Your task to perform on an android device: Show me popular videos on Youtube Image 0: 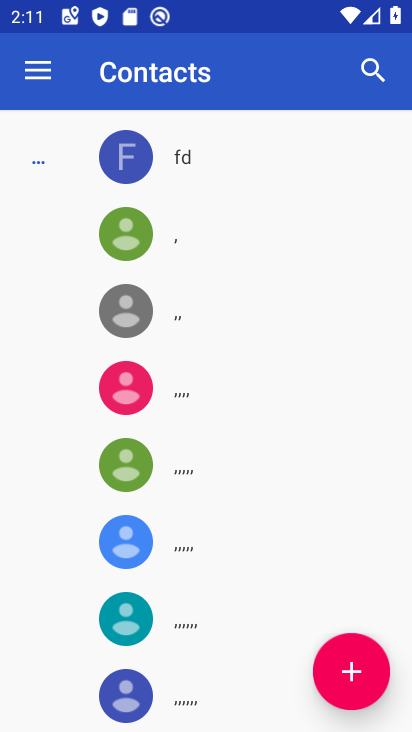
Step 0: press home button
Your task to perform on an android device: Show me popular videos on Youtube Image 1: 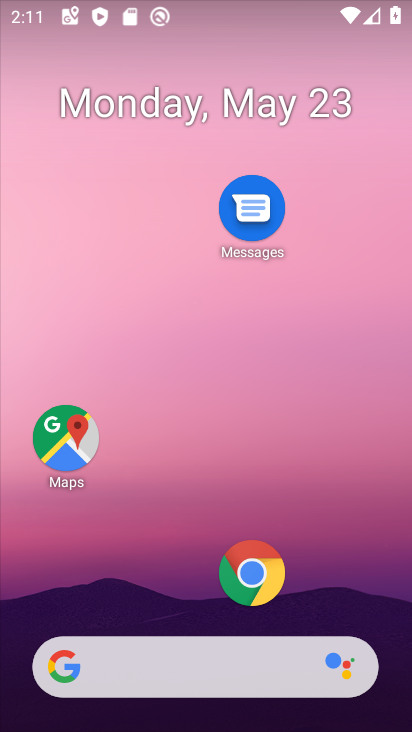
Step 1: drag from (287, 680) to (338, 57)
Your task to perform on an android device: Show me popular videos on Youtube Image 2: 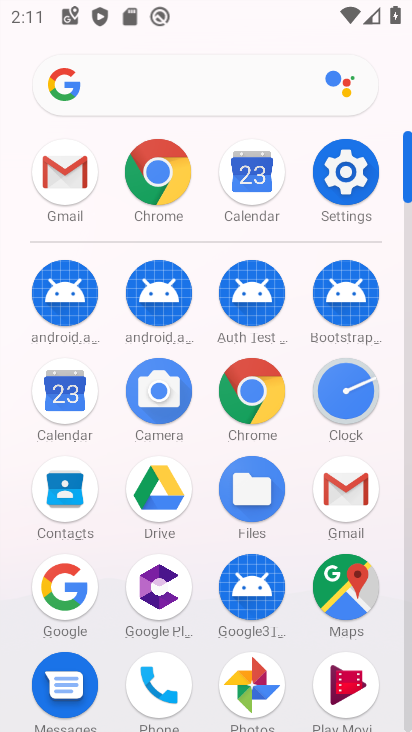
Step 2: drag from (262, 648) to (281, 2)
Your task to perform on an android device: Show me popular videos on Youtube Image 3: 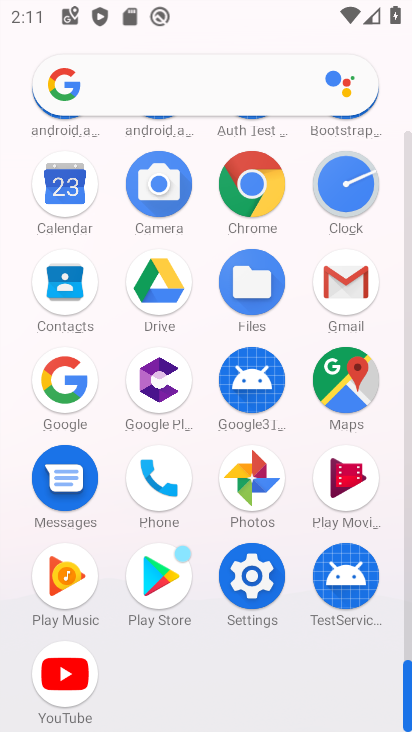
Step 3: click (71, 680)
Your task to perform on an android device: Show me popular videos on Youtube Image 4: 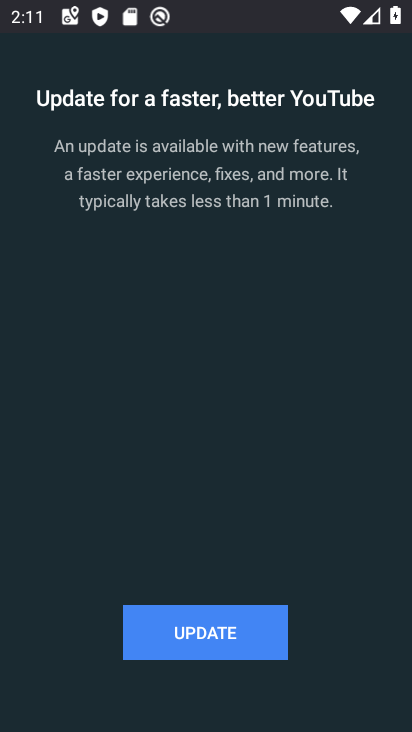
Step 4: click (200, 615)
Your task to perform on an android device: Show me popular videos on Youtube Image 5: 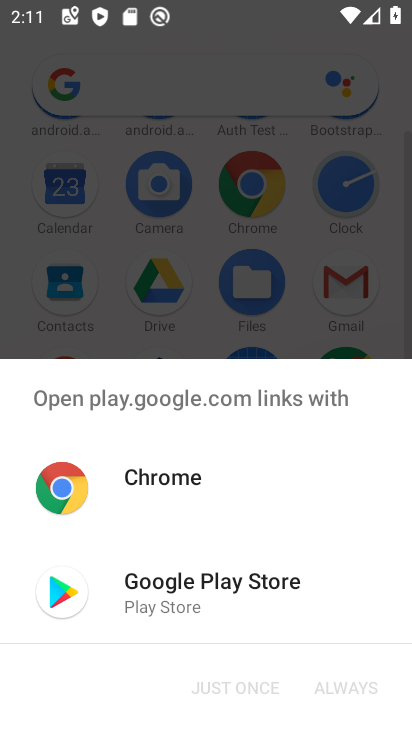
Step 5: click (226, 582)
Your task to perform on an android device: Show me popular videos on Youtube Image 6: 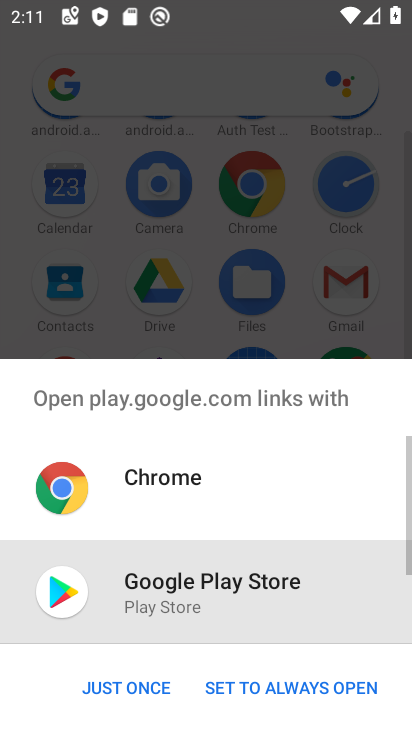
Step 6: click (111, 693)
Your task to perform on an android device: Show me popular videos on Youtube Image 7: 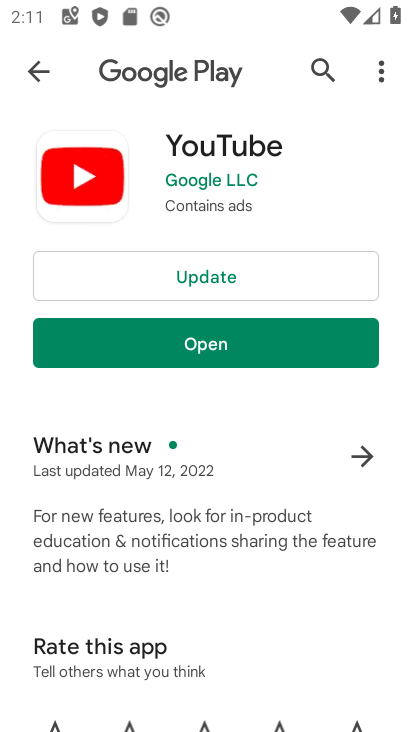
Step 7: click (229, 258)
Your task to perform on an android device: Show me popular videos on Youtube Image 8: 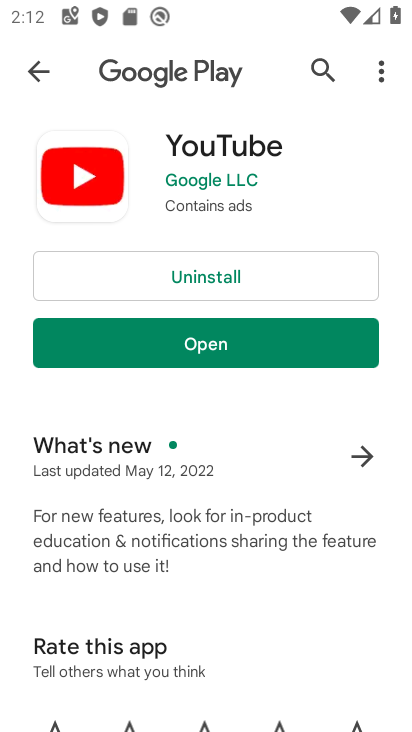
Step 8: click (329, 342)
Your task to perform on an android device: Show me popular videos on Youtube Image 9: 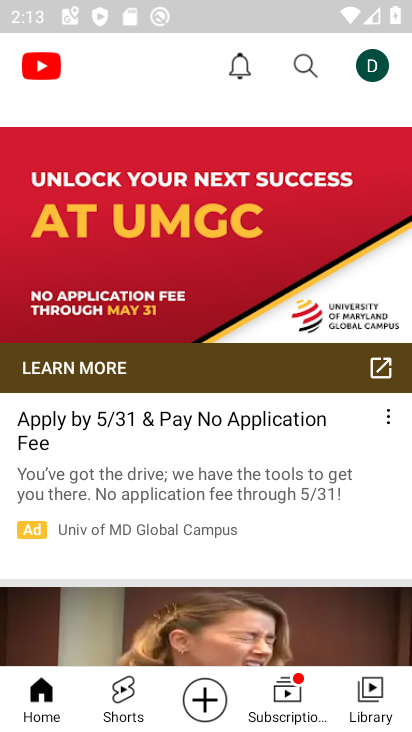
Step 9: click (374, 699)
Your task to perform on an android device: Show me popular videos on Youtube Image 10: 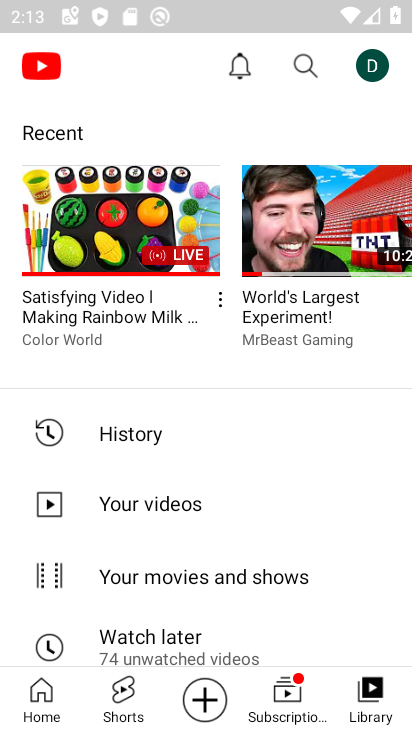
Step 10: task complete